Your task to perform on an android device: empty trash in the gmail app Image 0: 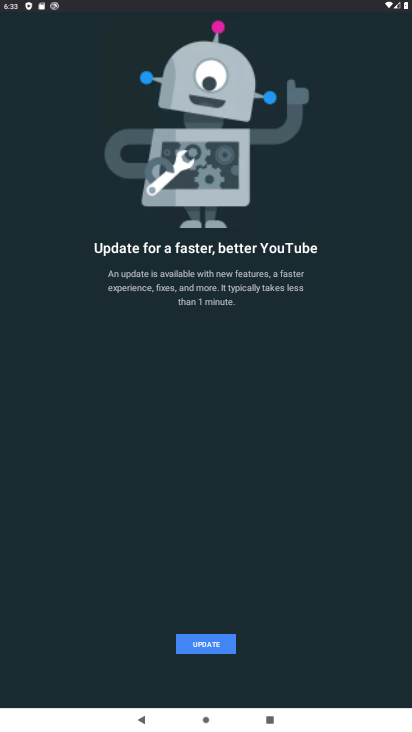
Step 0: press home button
Your task to perform on an android device: empty trash in the gmail app Image 1: 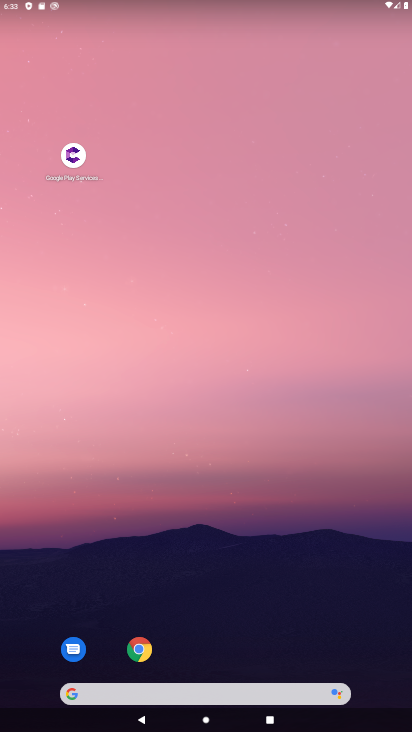
Step 1: drag from (216, 594) to (142, 77)
Your task to perform on an android device: empty trash in the gmail app Image 2: 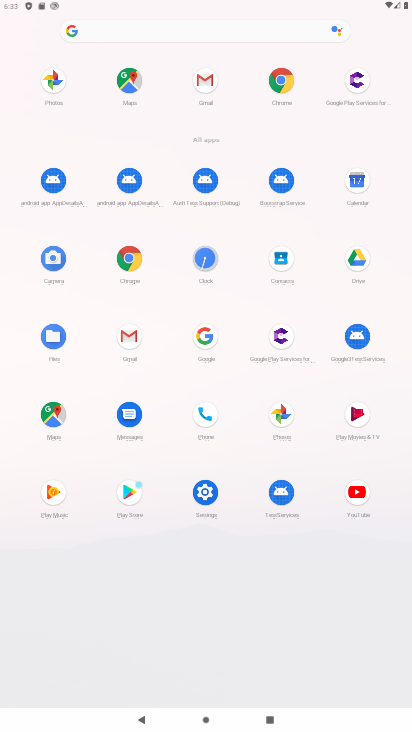
Step 2: click (201, 78)
Your task to perform on an android device: empty trash in the gmail app Image 3: 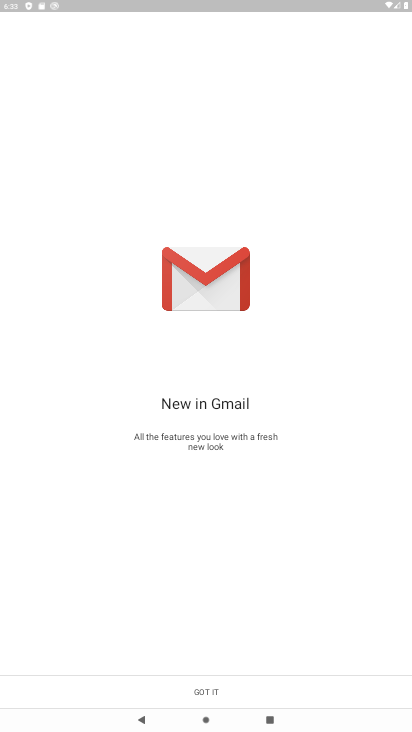
Step 3: click (204, 695)
Your task to perform on an android device: empty trash in the gmail app Image 4: 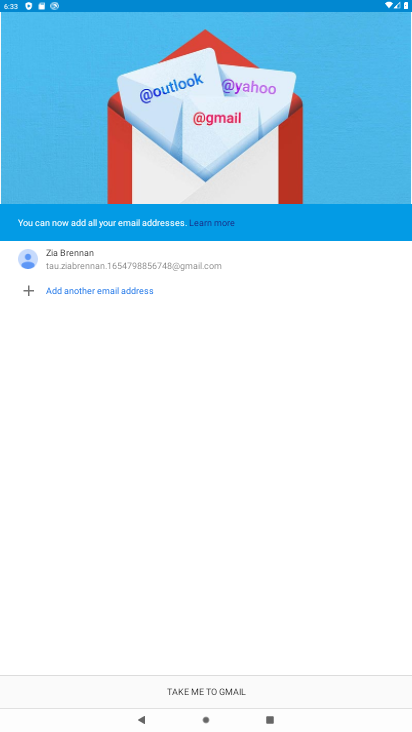
Step 4: click (201, 692)
Your task to perform on an android device: empty trash in the gmail app Image 5: 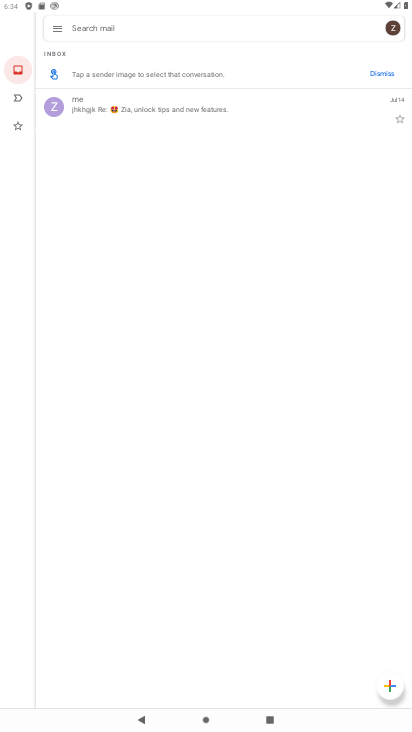
Step 5: click (55, 25)
Your task to perform on an android device: empty trash in the gmail app Image 6: 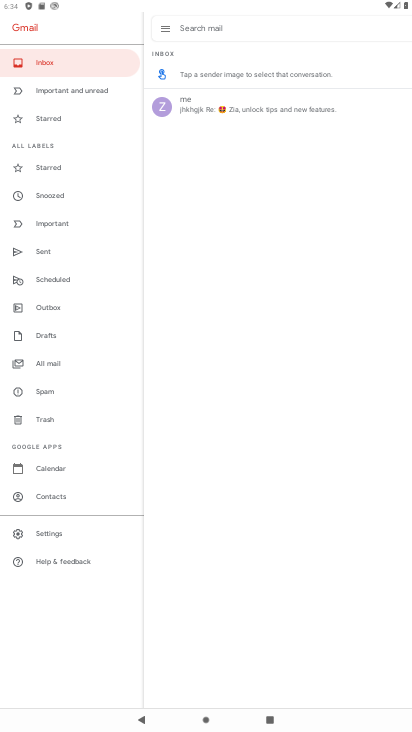
Step 6: click (40, 417)
Your task to perform on an android device: empty trash in the gmail app Image 7: 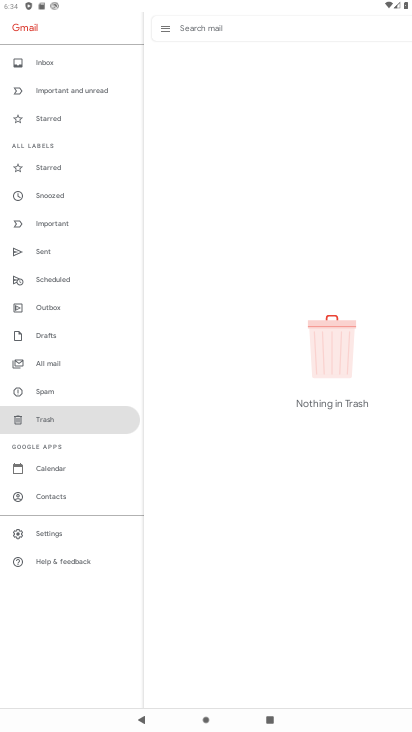
Step 7: task complete